Your task to perform on an android device: Show the shopping cart on target. Add macbook pro 15 inch to the cart on target, then select checkout. Image 0: 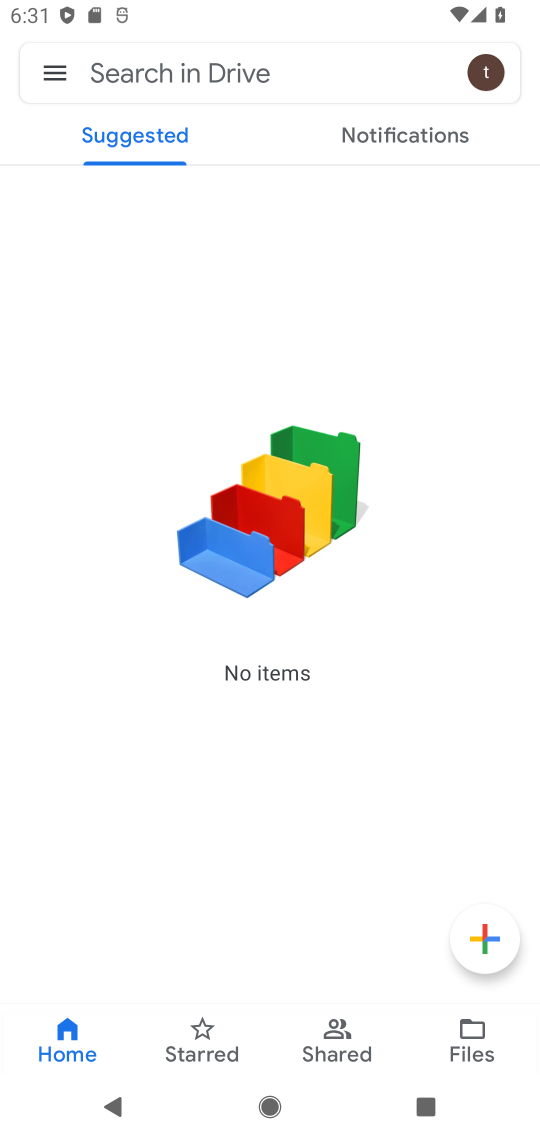
Step 0: press home button
Your task to perform on an android device: Show the shopping cart on target. Add macbook pro 15 inch to the cart on target, then select checkout. Image 1: 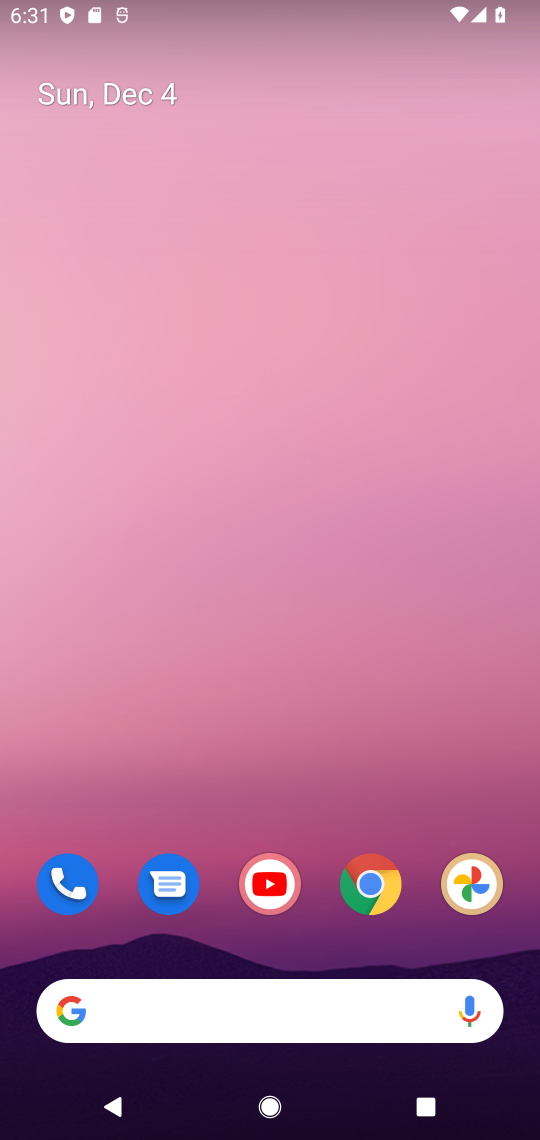
Step 1: drag from (170, 861) to (15, 308)
Your task to perform on an android device: Show the shopping cart on target. Add macbook pro 15 inch to the cart on target, then select checkout. Image 2: 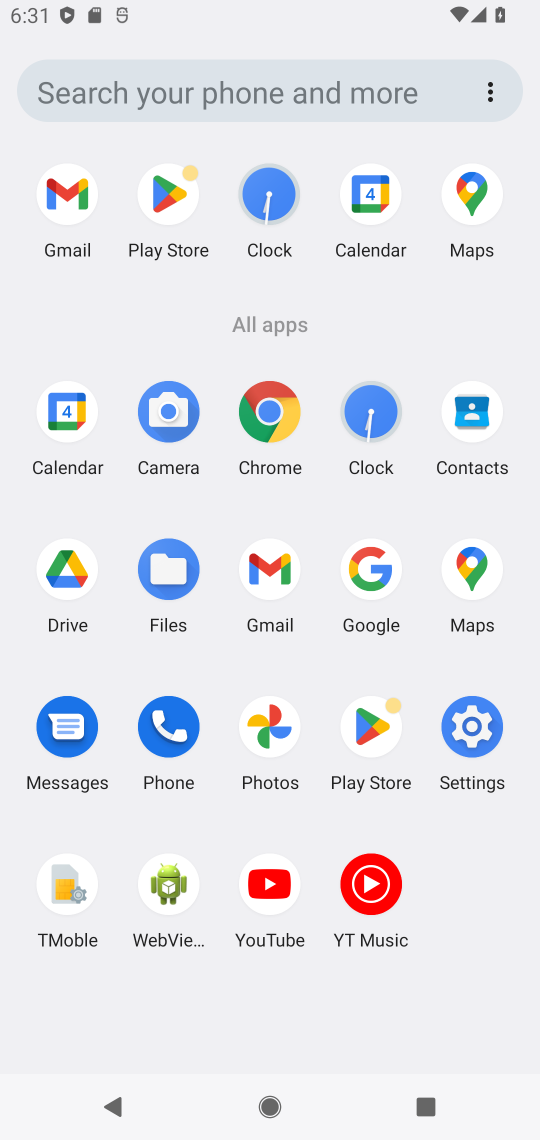
Step 2: click (352, 559)
Your task to perform on an android device: Show the shopping cart on target. Add macbook pro 15 inch to the cart on target, then select checkout. Image 3: 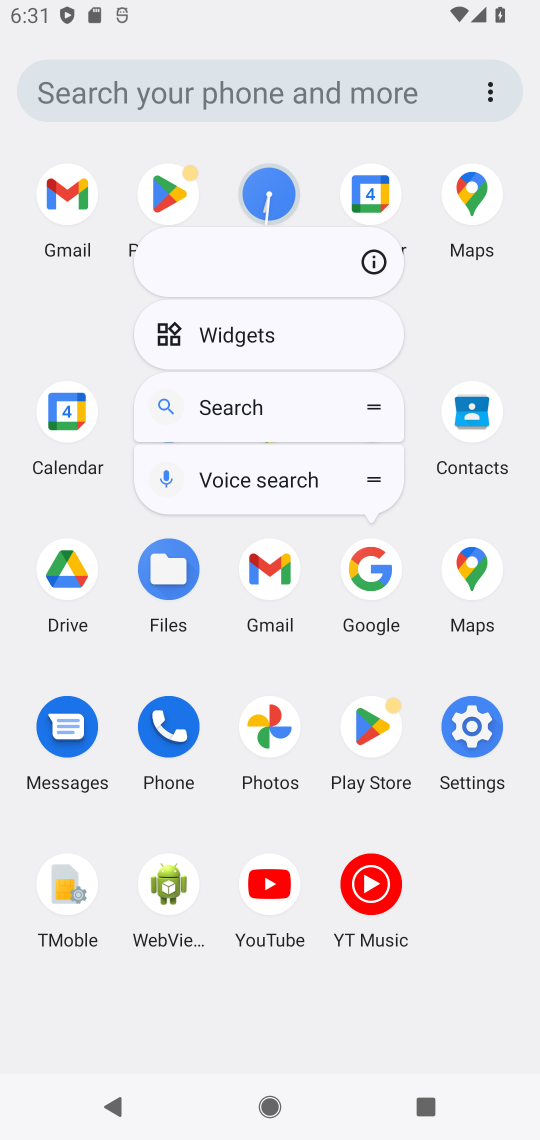
Step 3: click (375, 570)
Your task to perform on an android device: Show the shopping cart on target. Add macbook pro 15 inch to the cart on target, then select checkout. Image 4: 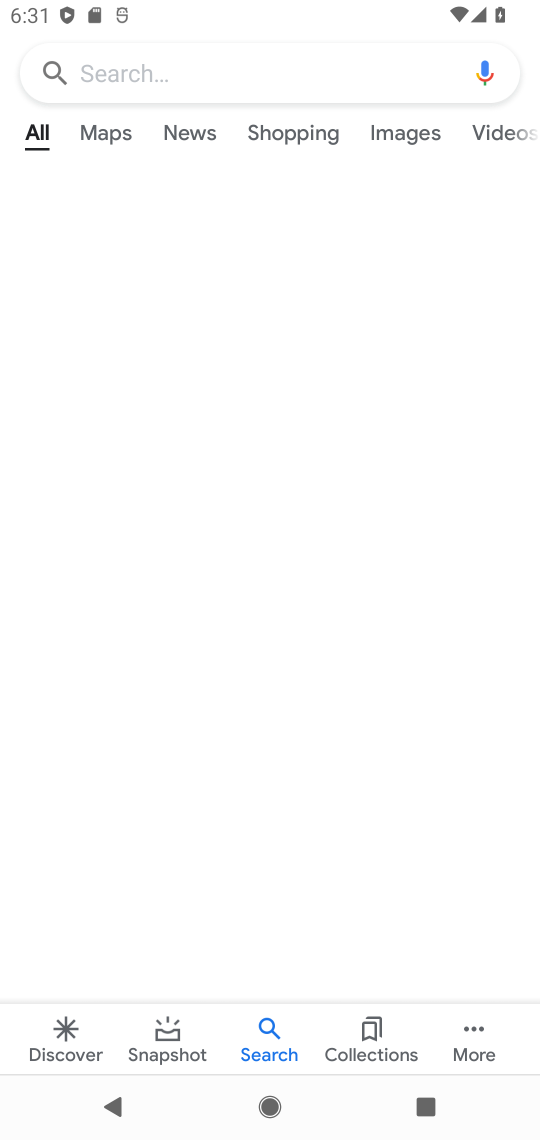
Step 4: click (208, 79)
Your task to perform on an android device: Show the shopping cart on target. Add macbook pro 15 inch to the cart on target, then select checkout. Image 5: 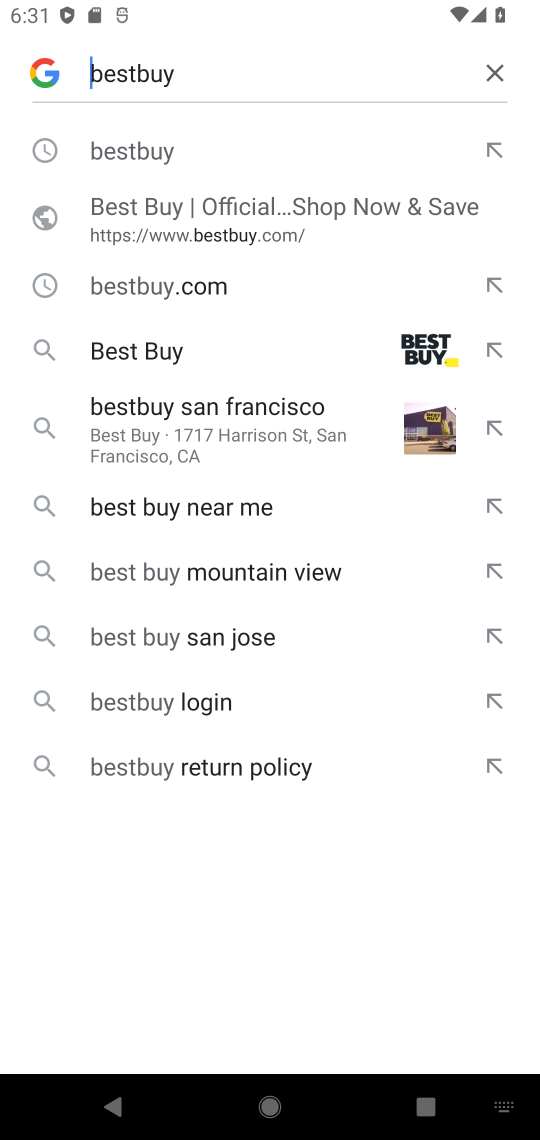
Step 5: click (496, 79)
Your task to perform on an android device: Show the shopping cart on target. Add macbook pro 15 inch to the cart on target, then select checkout. Image 6: 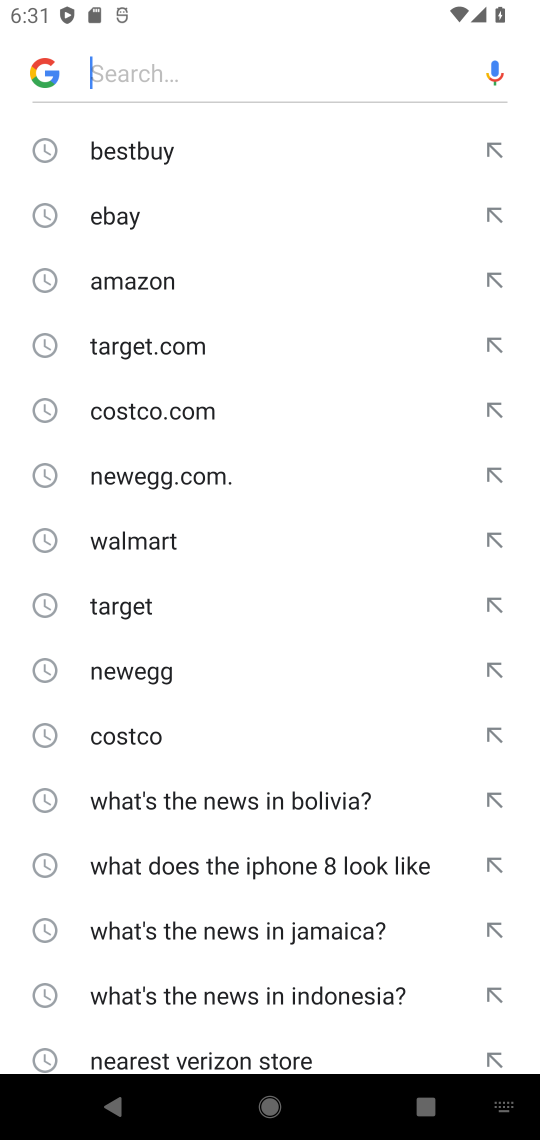
Step 6: click (125, 597)
Your task to perform on an android device: Show the shopping cart on target. Add macbook pro 15 inch to the cart on target, then select checkout. Image 7: 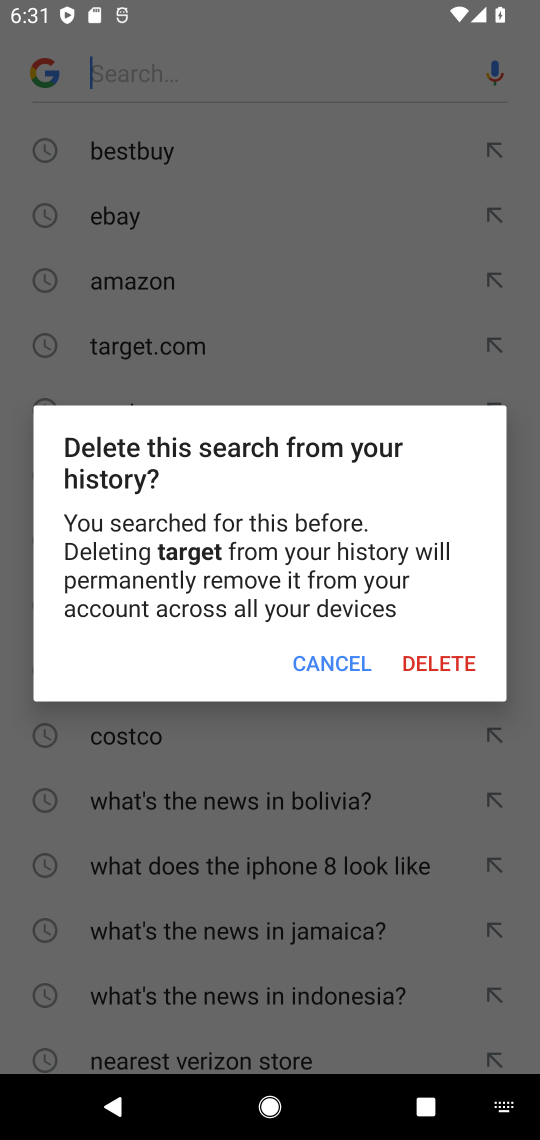
Step 7: click (328, 655)
Your task to perform on an android device: Show the shopping cart on target. Add macbook pro 15 inch to the cart on target, then select checkout. Image 8: 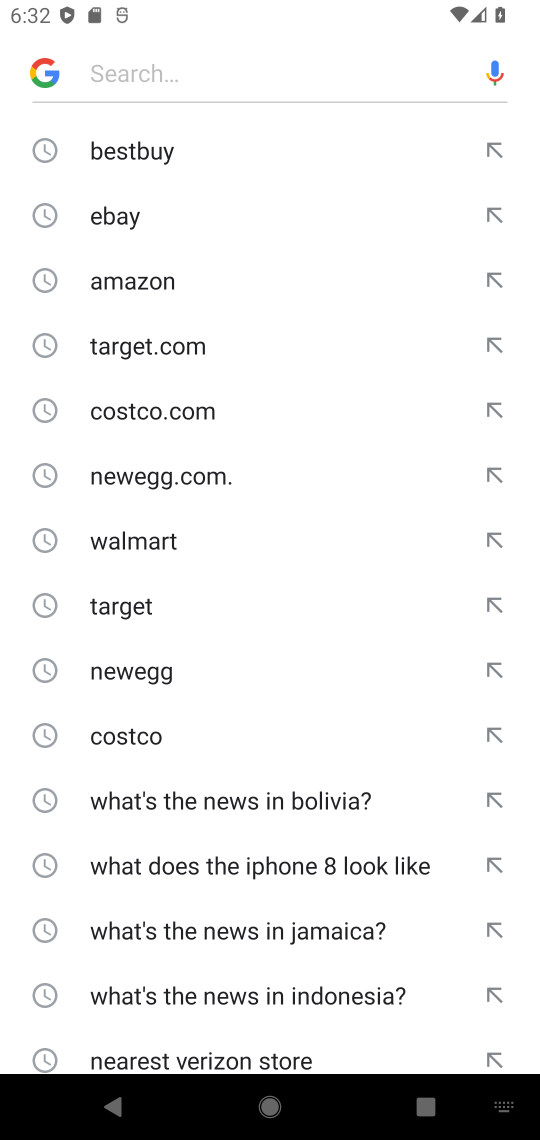
Step 8: click (141, 601)
Your task to perform on an android device: Show the shopping cart on target. Add macbook pro 15 inch to the cart on target, then select checkout. Image 9: 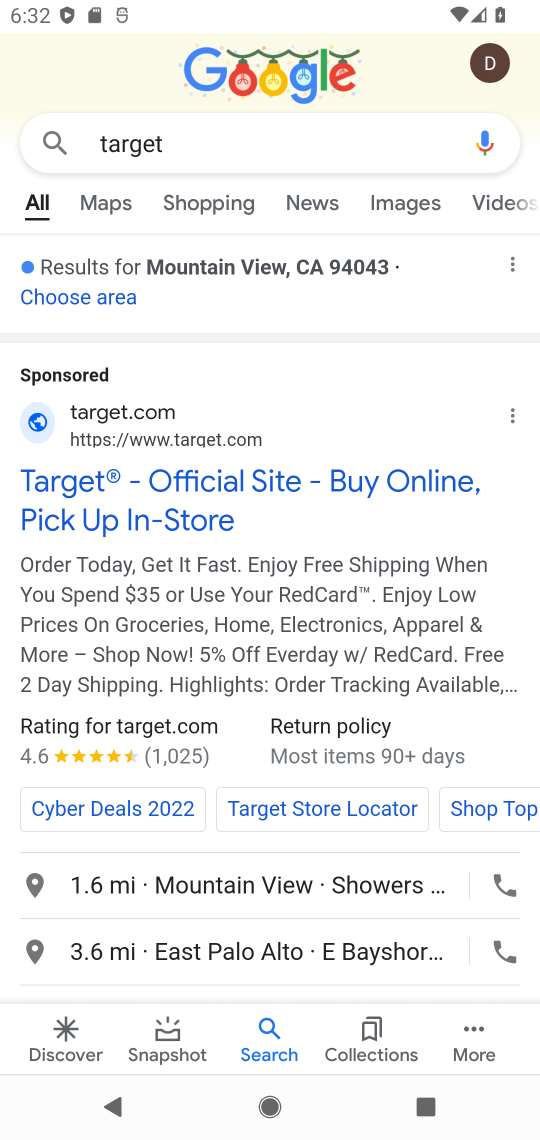
Step 9: click (100, 484)
Your task to perform on an android device: Show the shopping cart on target. Add macbook pro 15 inch to the cart on target, then select checkout. Image 10: 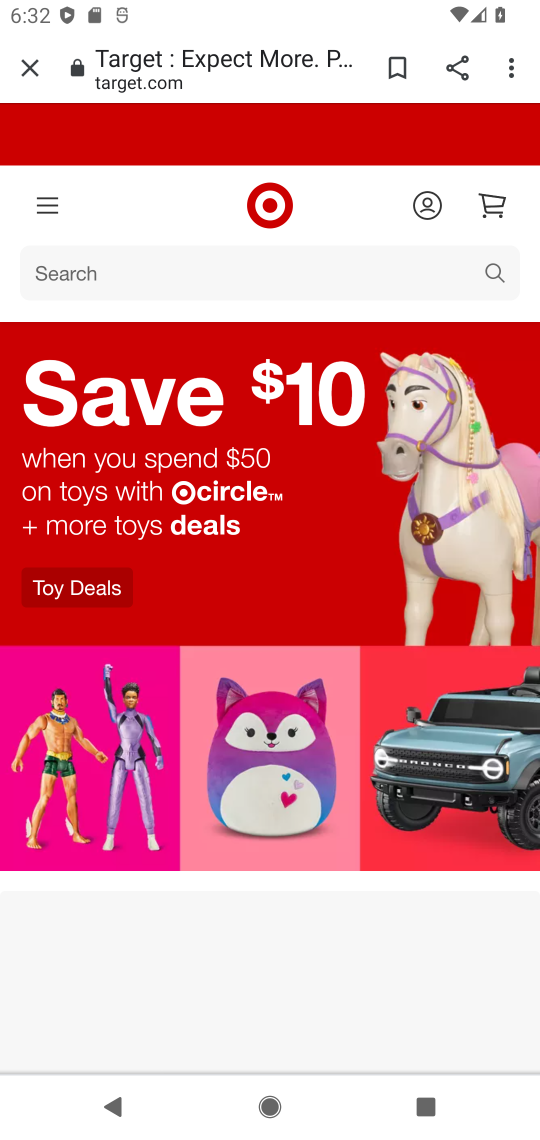
Step 10: click (131, 270)
Your task to perform on an android device: Show the shopping cart on target. Add macbook pro 15 inch to the cart on target, then select checkout. Image 11: 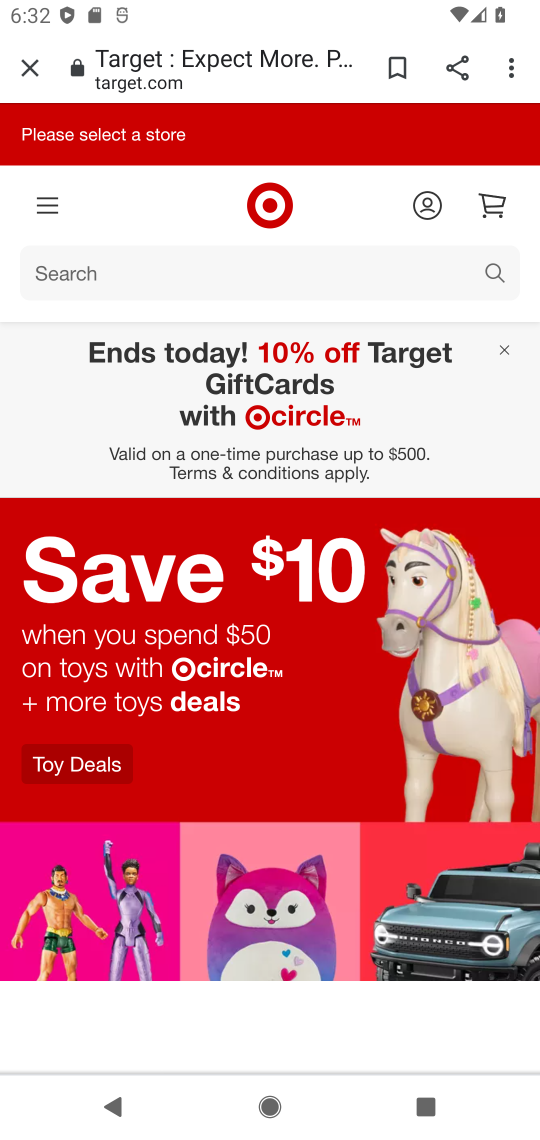
Step 11: click (101, 260)
Your task to perform on an android device: Show the shopping cart on target. Add macbook pro 15 inch to the cart on target, then select checkout. Image 12: 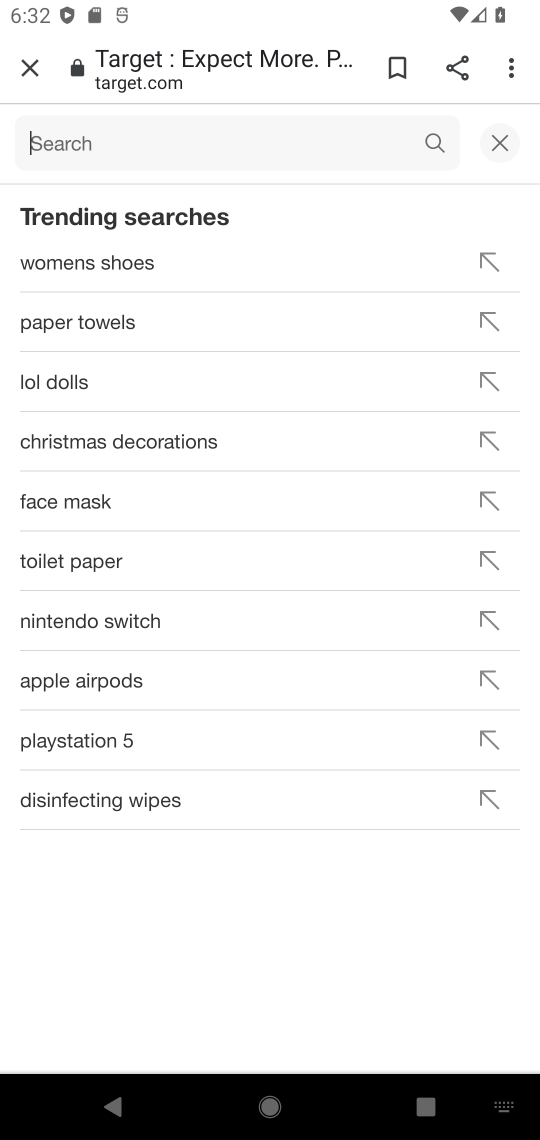
Step 12: type "macbook pro 15"
Your task to perform on an android device: Show the shopping cart on target. Add macbook pro 15 inch to the cart on target, then select checkout. Image 13: 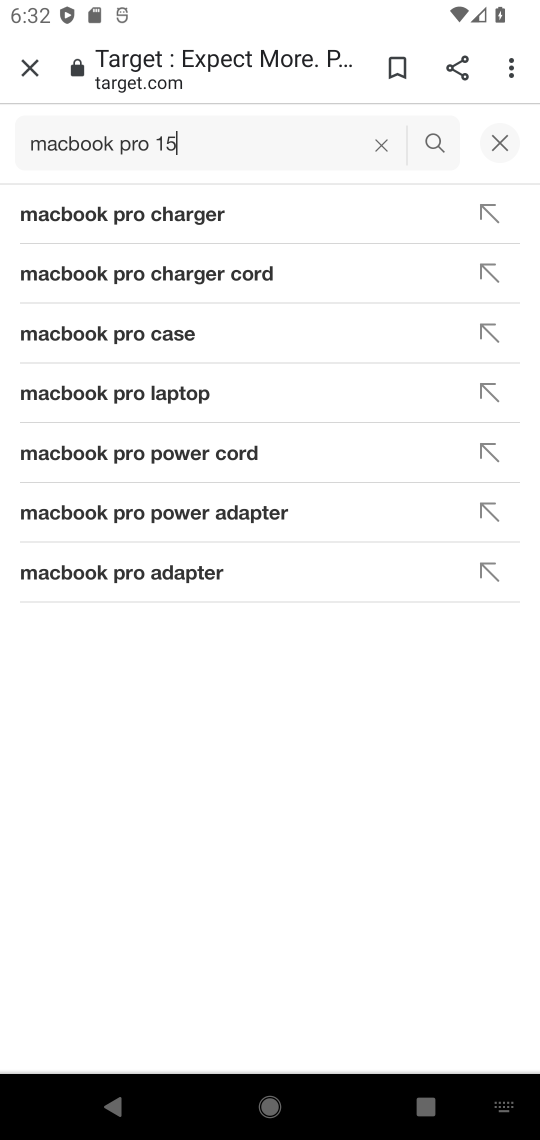
Step 13: click (431, 138)
Your task to perform on an android device: Show the shopping cart on target. Add macbook pro 15 inch to the cart on target, then select checkout. Image 14: 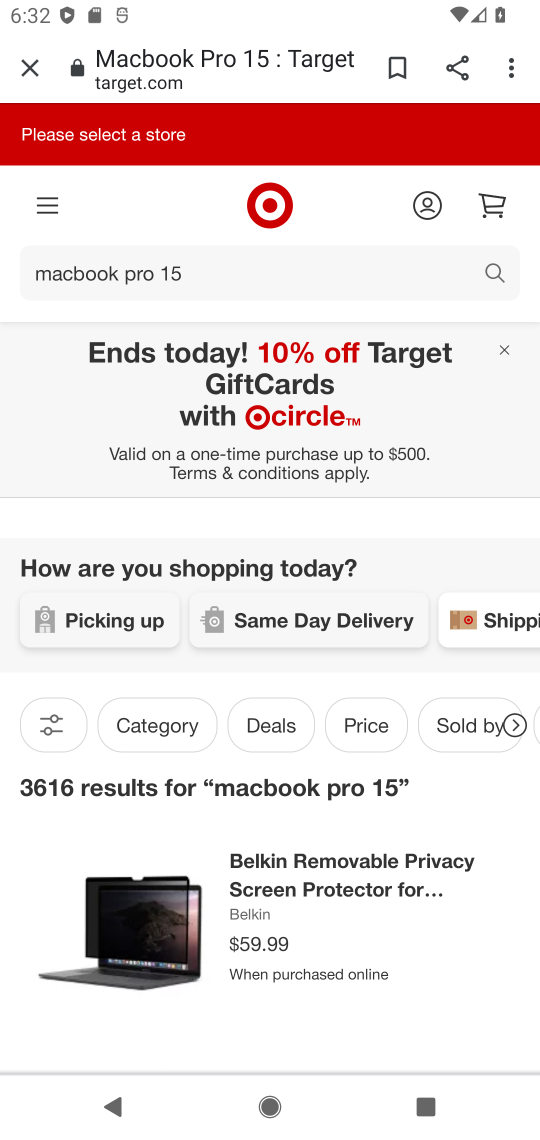
Step 14: drag from (285, 998) to (105, 534)
Your task to perform on an android device: Show the shopping cart on target. Add macbook pro 15 inch to the cart on target, then select checkout. Image 15: 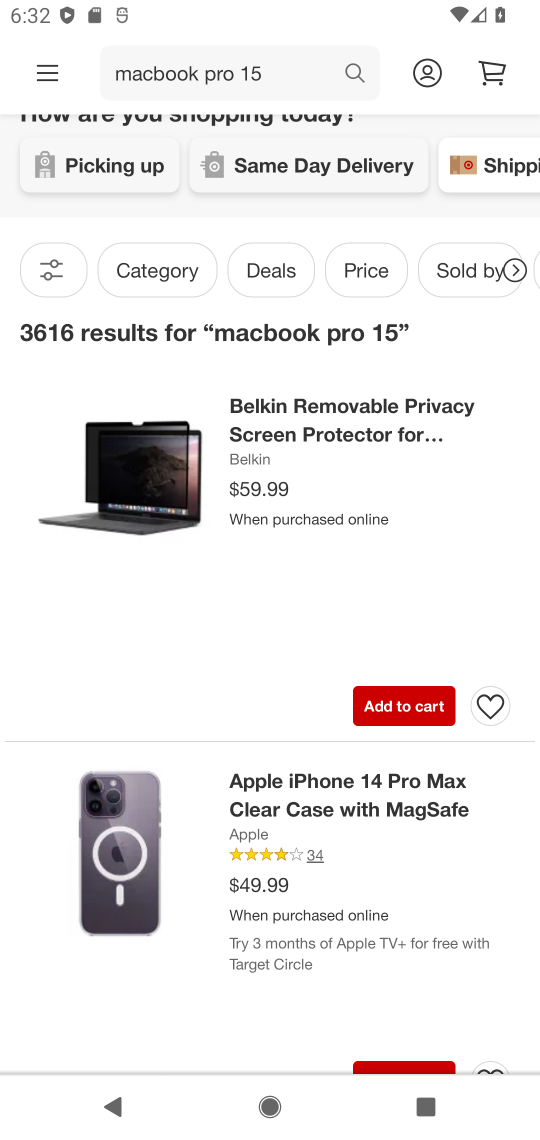
Step 15: click (405, 697)
Your task to perform on an android device: Show the shopping cart on target. Add macbook pro 15 inch to the cart on target, then select checkout. Image 16: 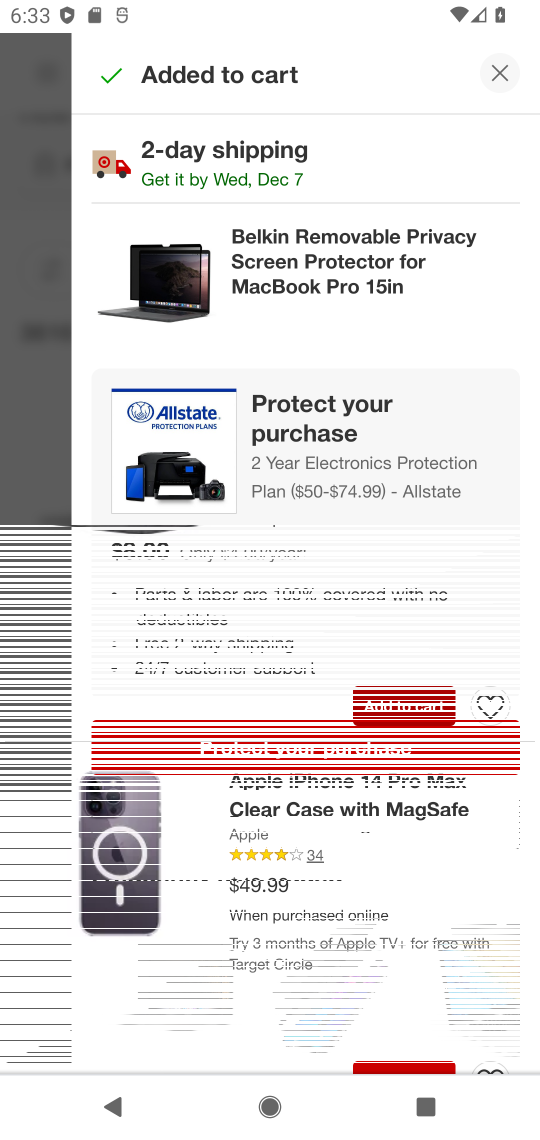
Step 16: click (503, 78)
Your task to perform on an android device: Show the shopping cart on target. Add macbook pro 15 inch to the cart on target, then select checkout. Image 17: 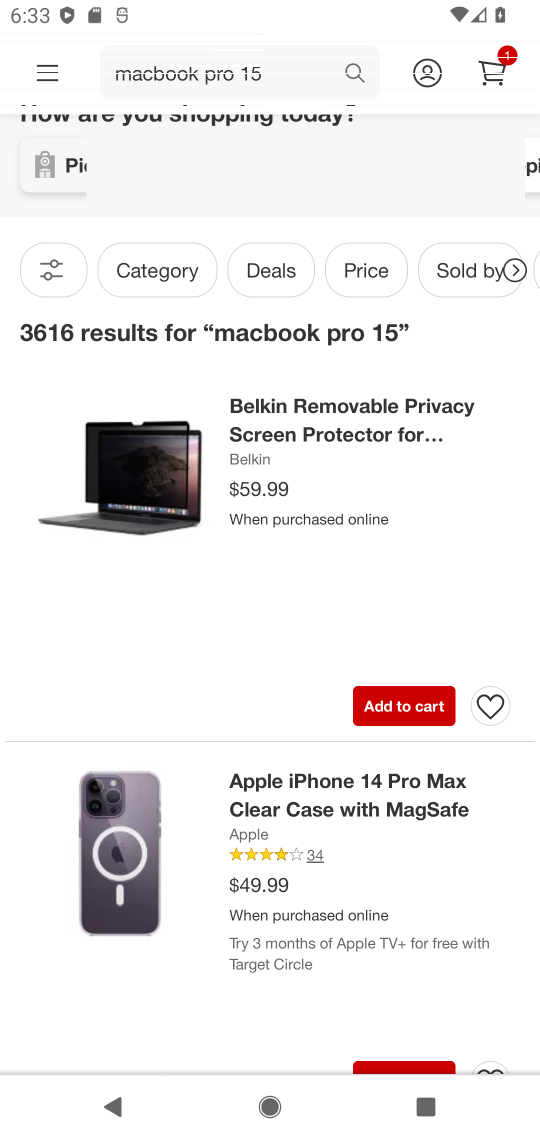
Step 17: click (493, 72)
Your task to perform on an android device: Show the shopping cart on target. Add macbook pro 15 inch to the cart on target, then select checkout. Image 18: 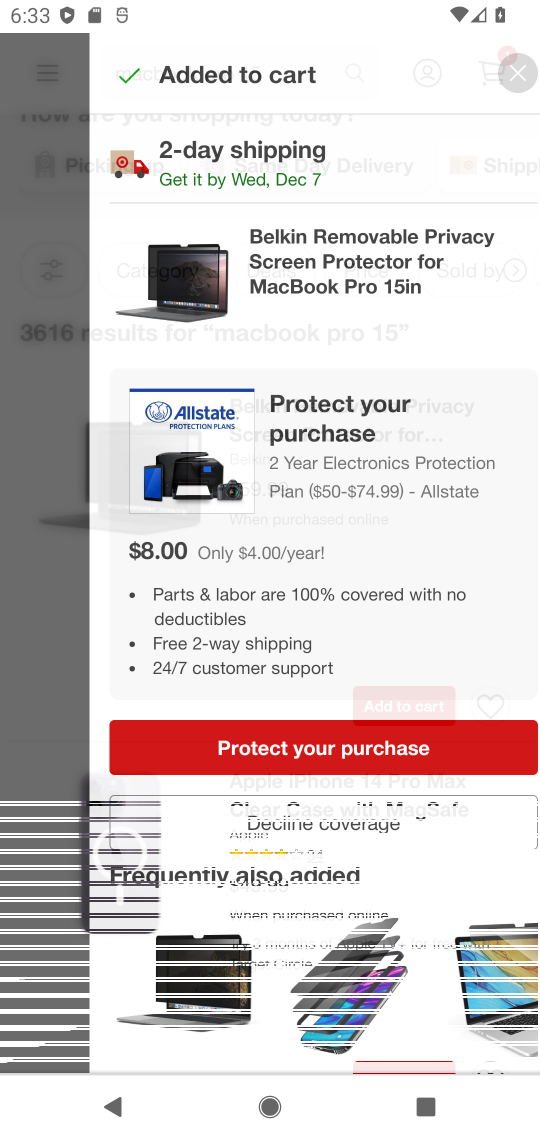
Step 18: drag from (278, 804) to (128, 281)
Your task to perform on an android device: Show the shopping cart on target. Add macbook pro 15 inch to the cart on target, then select checkout. Image 19: 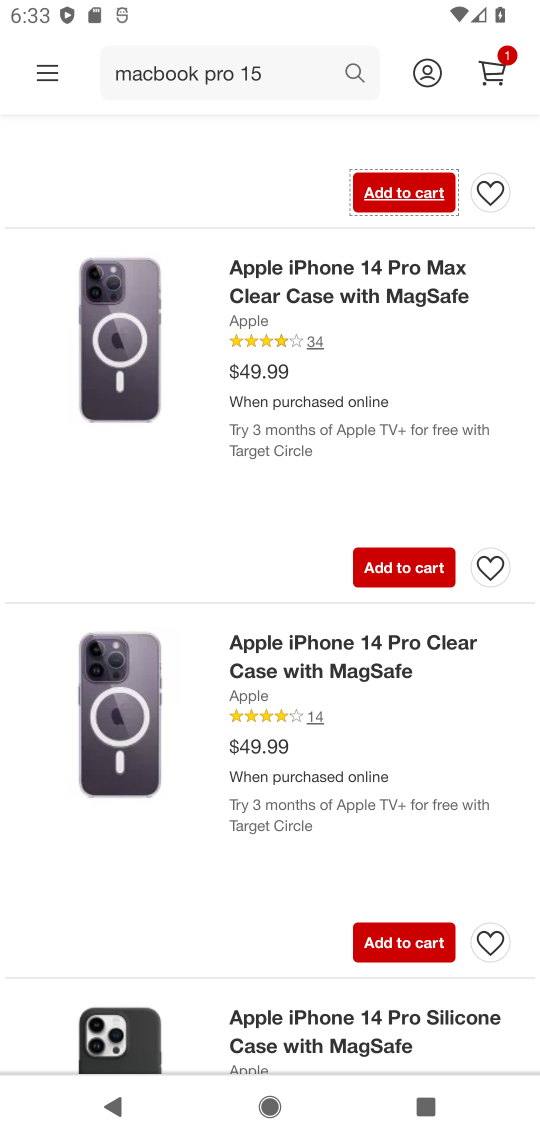
Step 19: drag from (168, 227) to (319, 704)
Your task to perform on an android device: Show the shopping cart on target. Add macbook pro 15 inch to the cart on target, then select checkout. Image 20: 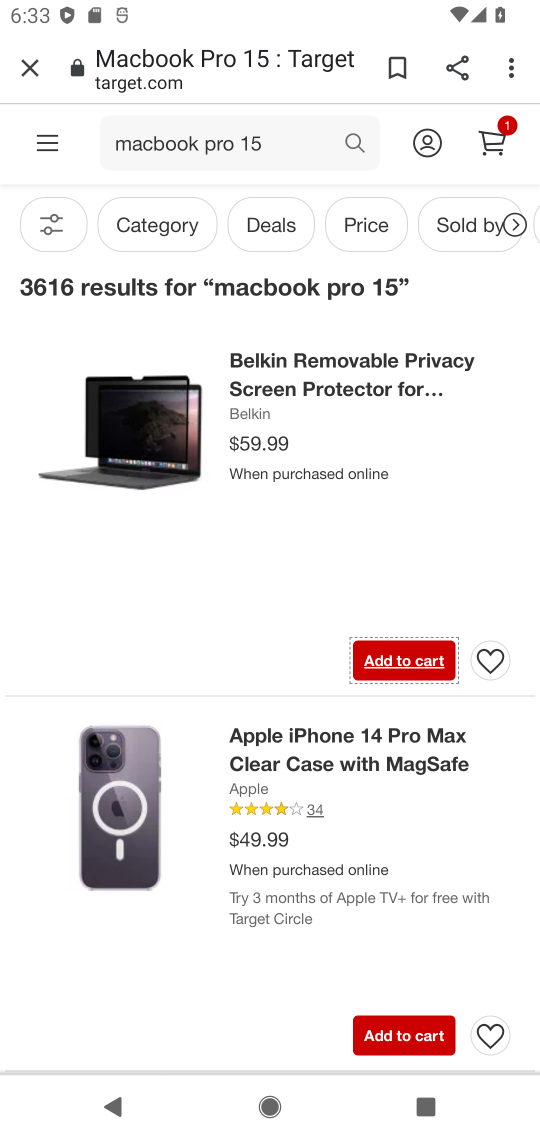
Step 20: drag from (260, 287) to (401, 722)
Your task to perform on an android device: Show the shopping cart on target. Add macbook pro 15 inch to the cart on target, then select checkout. Image 21: 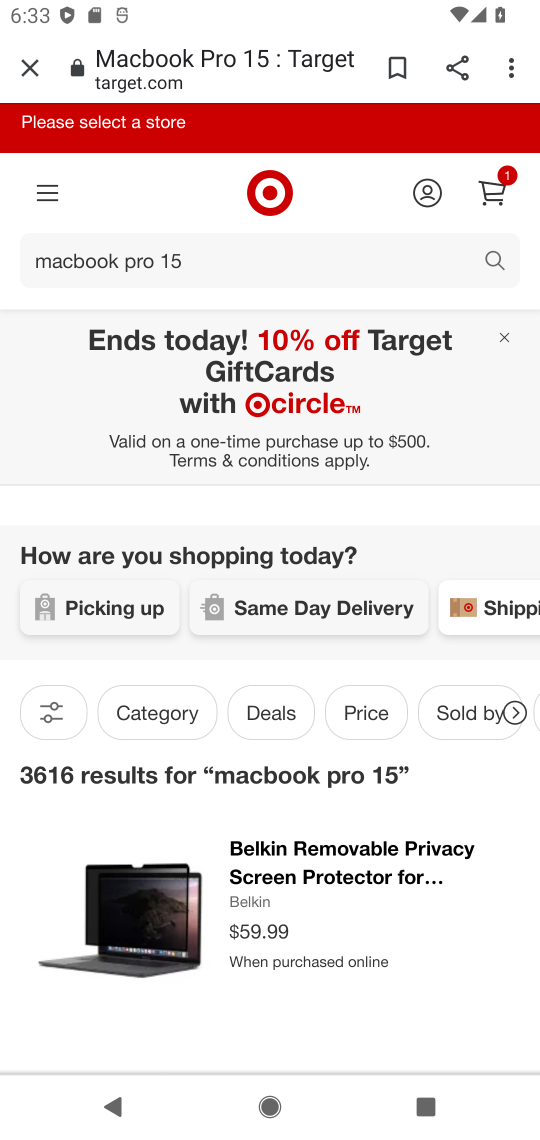
Step 21: drag from (258, 357) to (294, 673)
Your task to perform on an android device: Show the shopping cart on target. Add macbook pro 15 inch to the cart on target, then select checkout. Image 22: 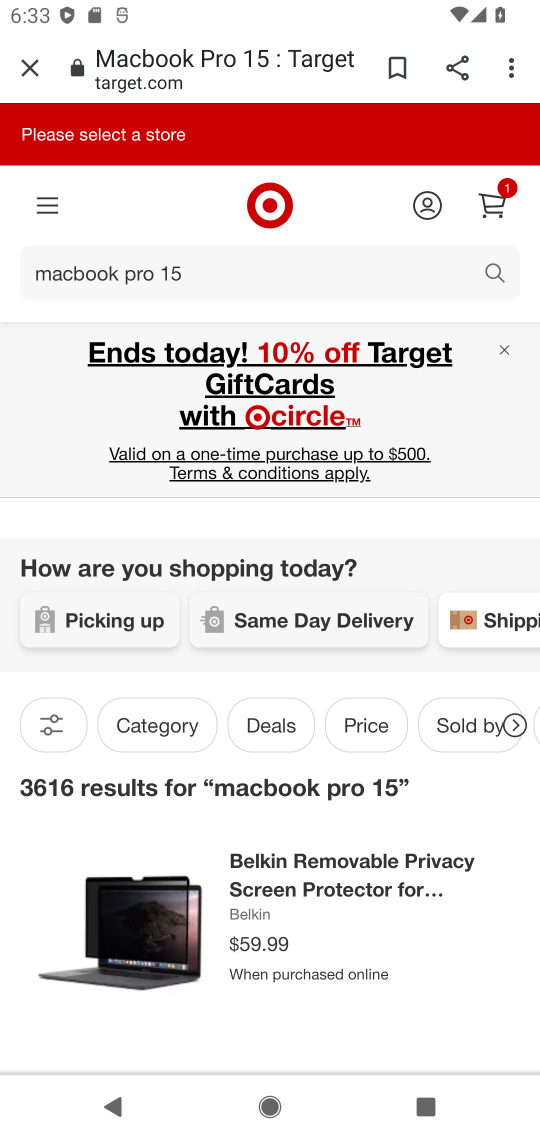
Step 22: drag from (293, 827) to (248, 479)
Your task to perform on an android device: Show the shopping cart on target. Add macbook pro 15 inch to the cart on target, then select checkout. Image 23: 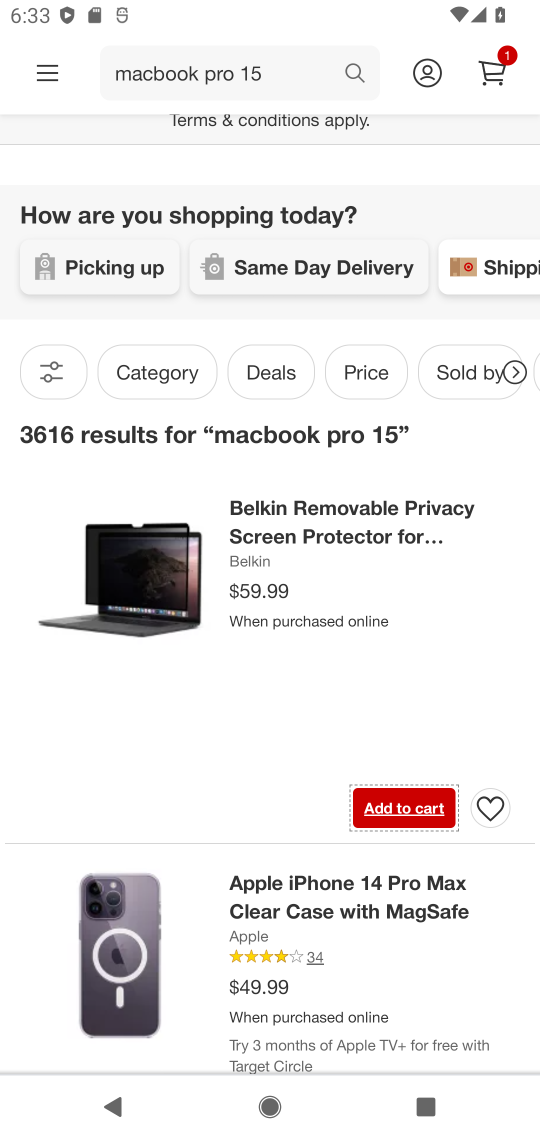
Step 23: click (427, 807)
Your task to perform on an android device: Show the shopping cart on target. Add macbook pro 15 inch to the cart on target, then select checkout. Image 24: 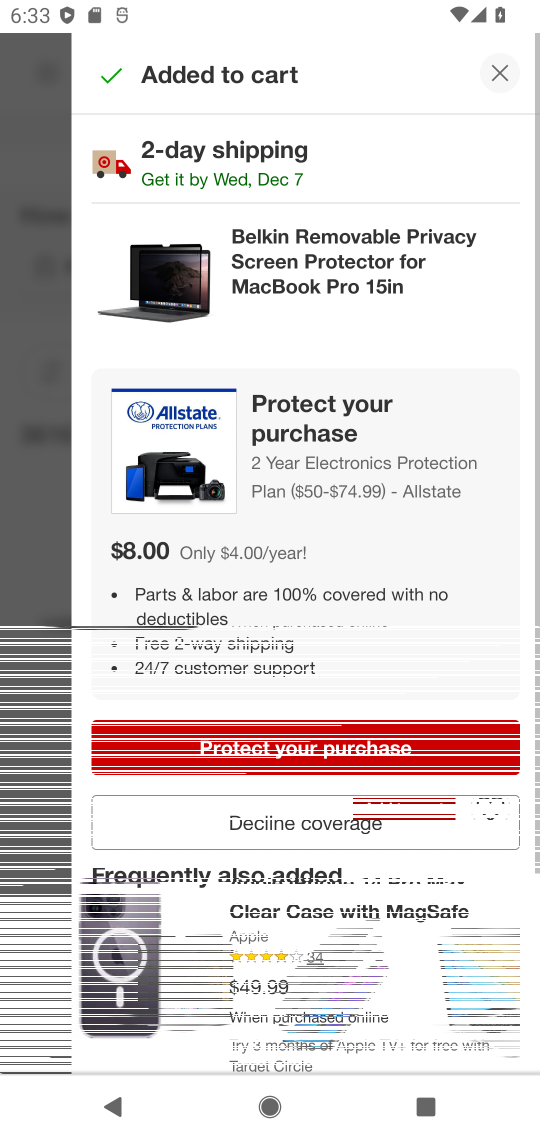
Step 24: click (498, 70)
Your task to perform on an android device: Show the shopping cart on target. Add macbook pro 15 inch to the cart on target, then select checkout. Image 25: 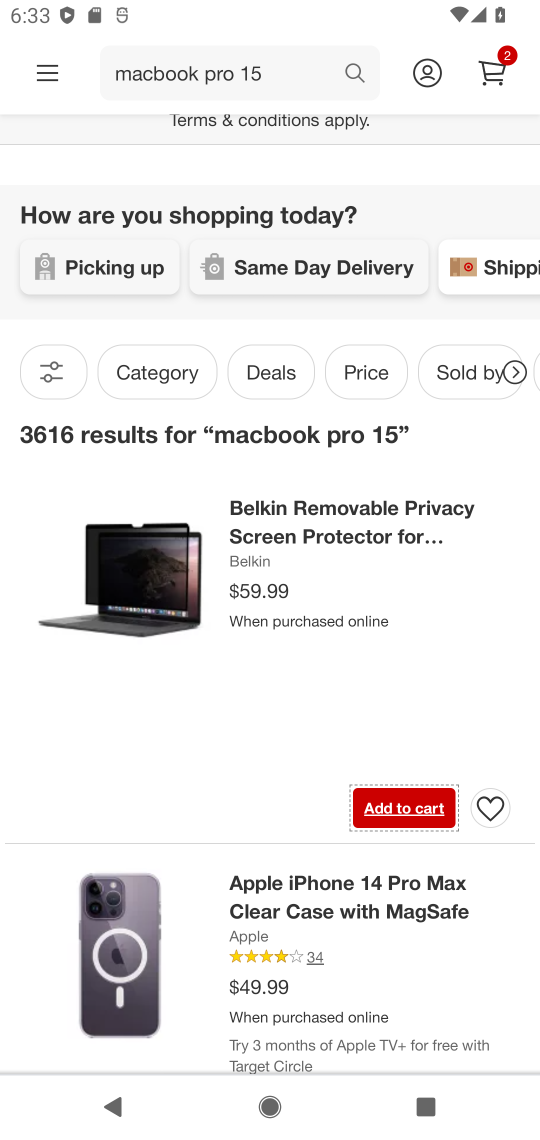
Step 25: click (480, 77)
Your task to perform on an android device: Show the shopping cart on target. Add macbook pro 15 inch to the cart on target, then select checkout. Image 26: 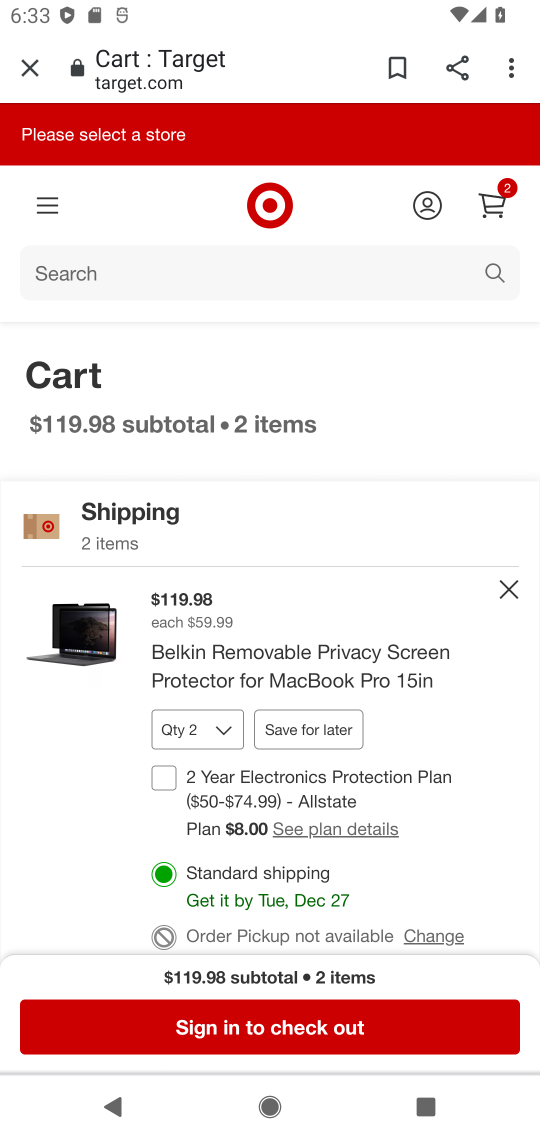
Step 26: drag from (315, 913) to (274, 423)
Your task to perform on an android device: Show the shopping cart on target. Add macbook pro 15 inch to the cart on target, then select checkout. Image 27: 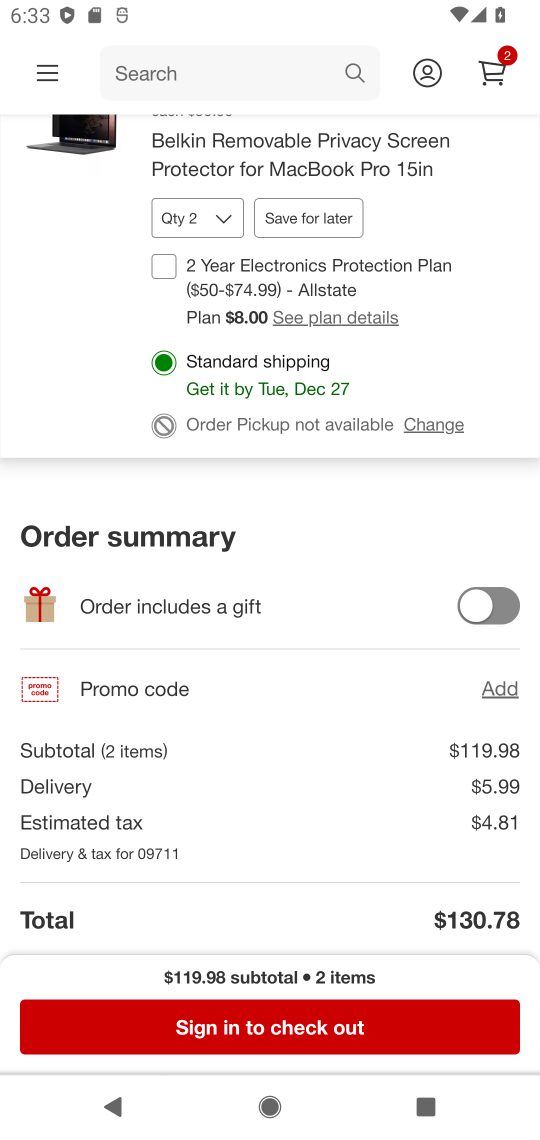
Step 27: click (325, 1038)
Your task to perform on an android device: Show the shopping cart on target. Add macbook pro 15 inch to the cart on target, then select checkout. Image 28: 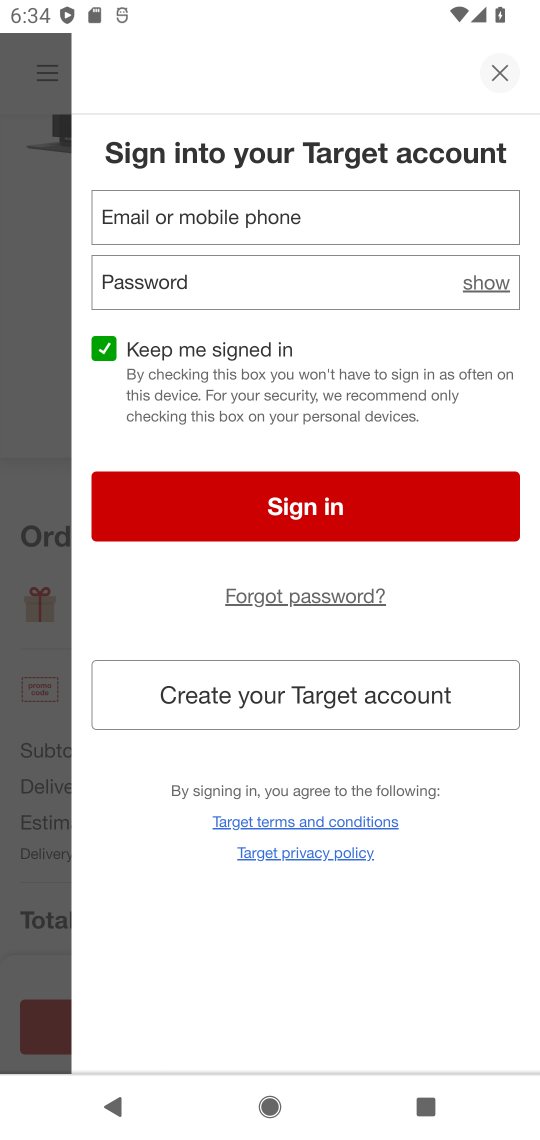
Step 28: task complete